Your task to perform on an android device: show emergency info Image 0: 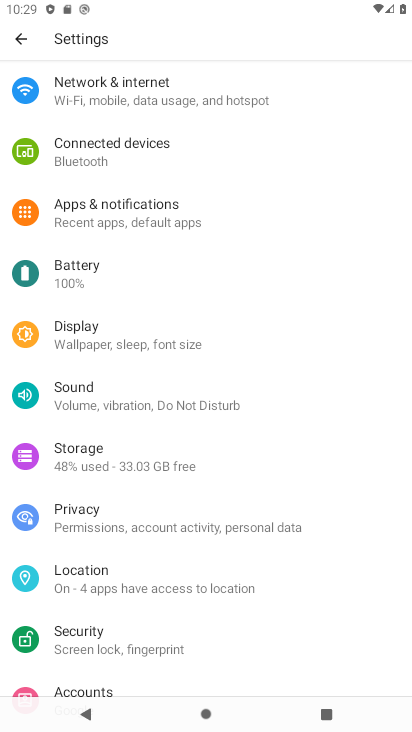
Step 0: drag from (146, 573) to (150, 172)
Your task to perform on an android device: show emergency info Image 1: 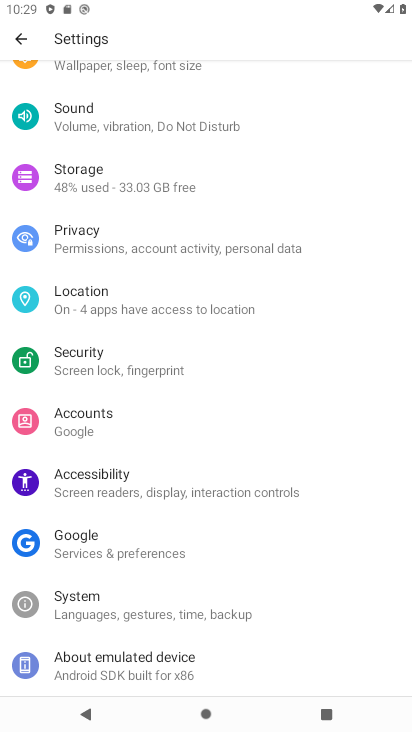
Step 1: click (129, 673)
Your task to perform on an android device: show emergency info Image 2: 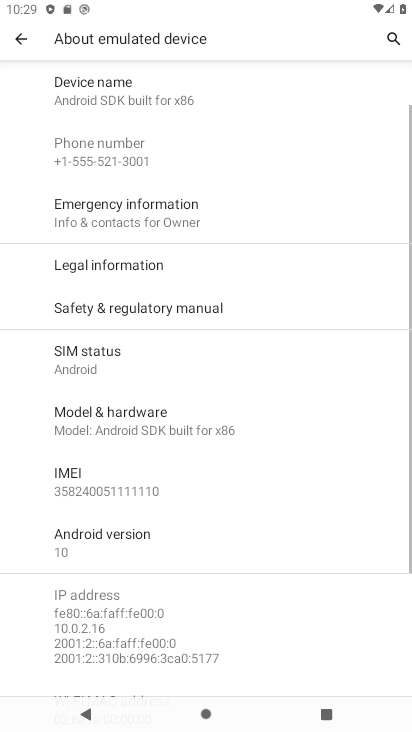
Step 2: click (159, 213)
Your task to perform on an android device: show emergency info Image 3: 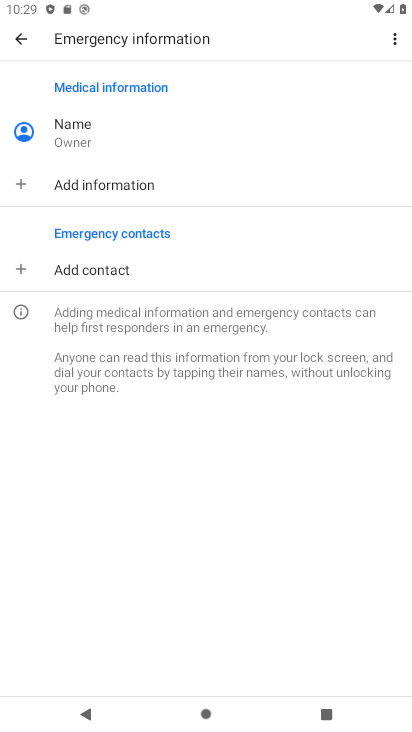
Step 3: task complete